Your task to perform on an android device: Open Wikipedia Image 0: 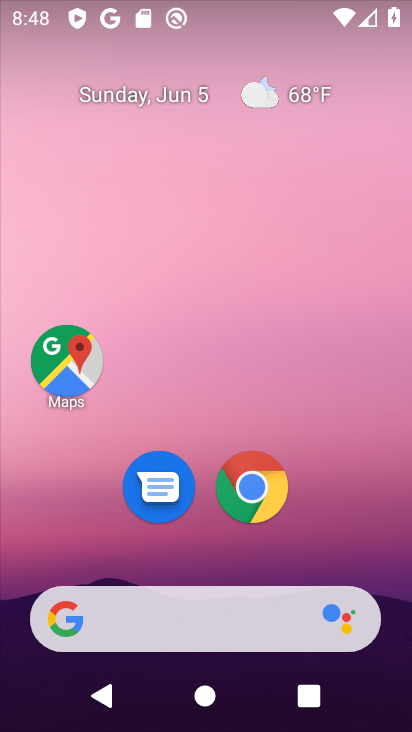
Step 0: click (260, 486)
Your task to perform on an android device: Open Wikipedia Image 1: 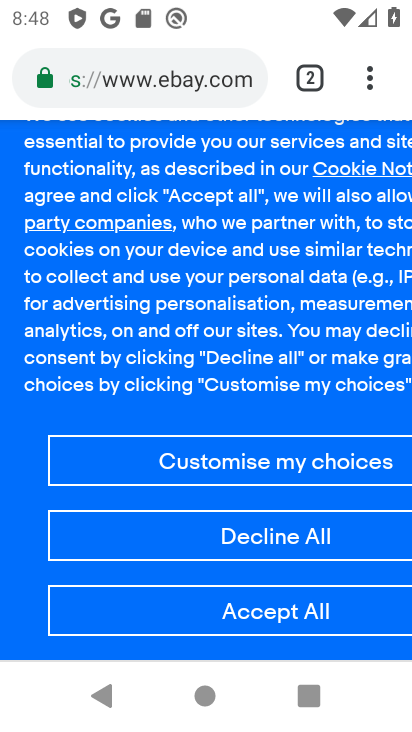
Step 1: click (290, 83)
Your task to perform on an android device: Open Wikipedia Image 2: 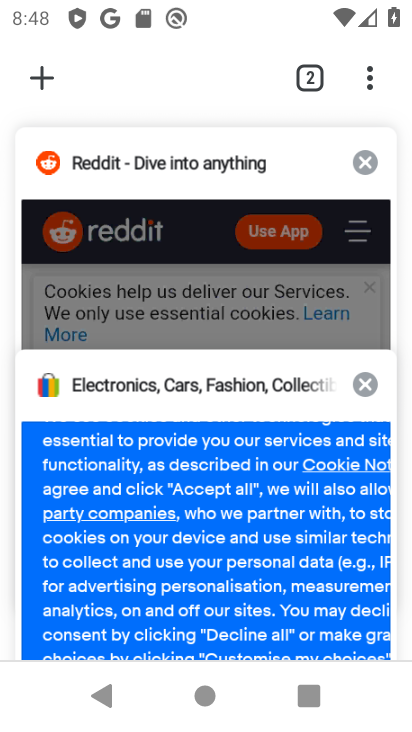
Step 2: click (33, 77)
Your task to perform on an android device: Open Wikipedia Image 3: 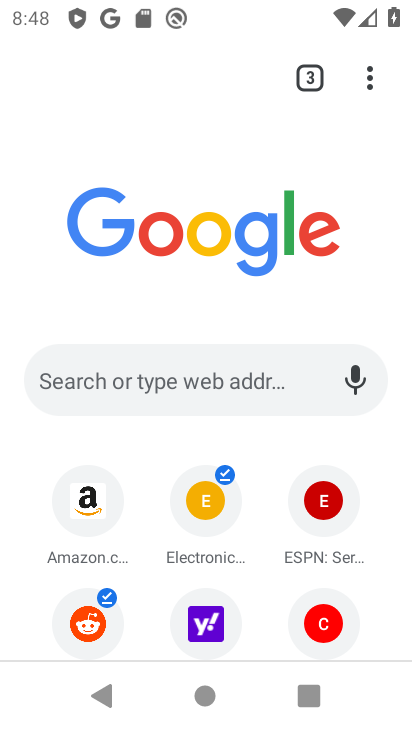
Step 3: drag from (213, 550) to (267, 288)
Your task to perform on an android device: Open Wikipedia Image 4: 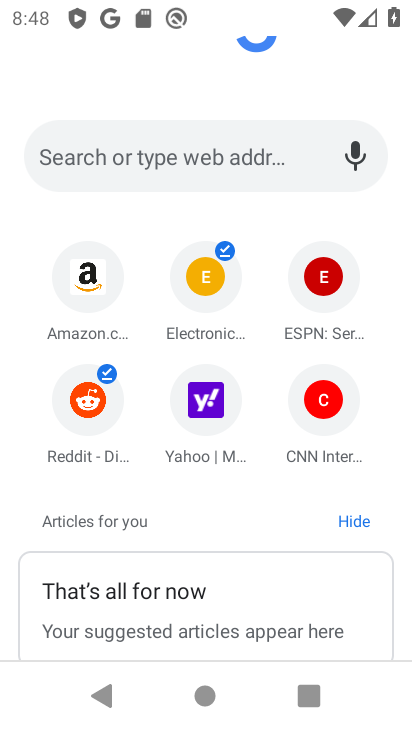
Step 4: click (119, 148)
Your task to perform on an android device: Open Wikipedia Image 5: 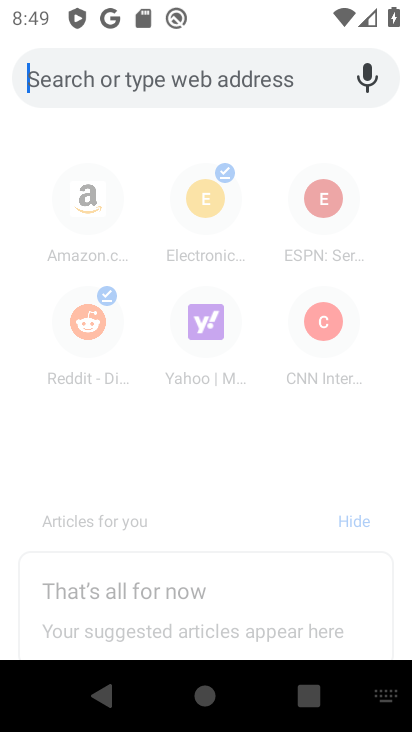
Step 5: type "wikipedia"
Your task to perform on an android device: Open Wikipedia Image 6: 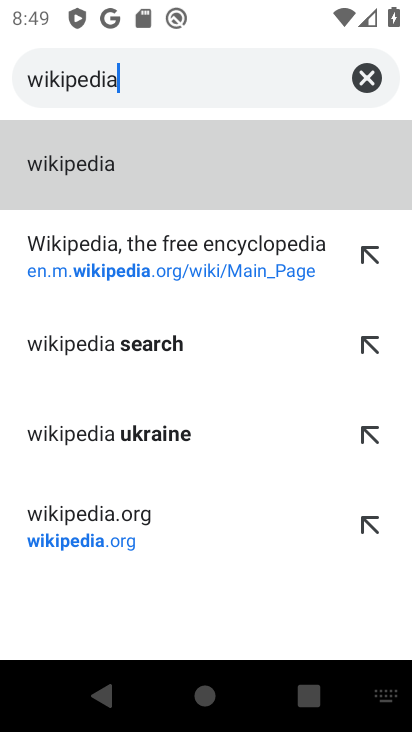
Step 6: click (185, 265)
Your task to perform on an android device: Open Wikipedia Image 7: 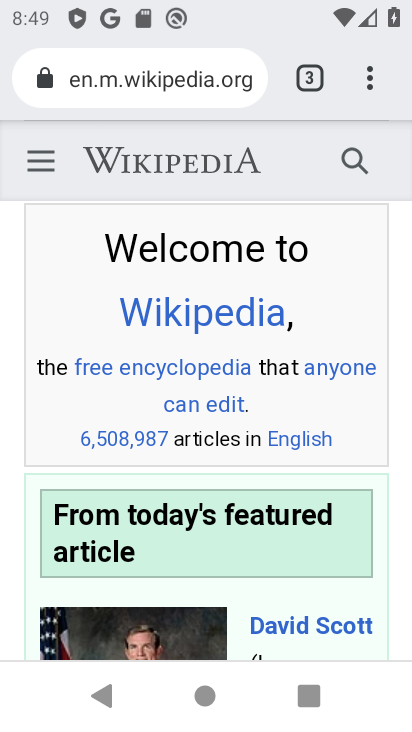
Step 7: task complete